Your task to perform on an android device: Open the calendar and show me this week's events Image 0: 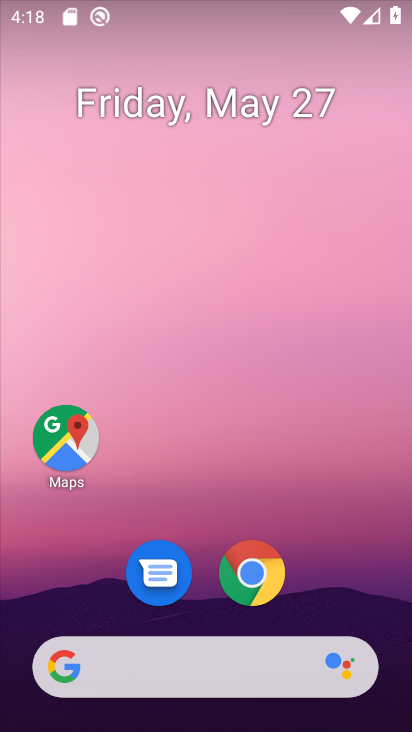
Step 0: drag from (317, 577) to (284, 40)
Your task to perform on an android device: Open the calendar and show me this week's events Image 1: 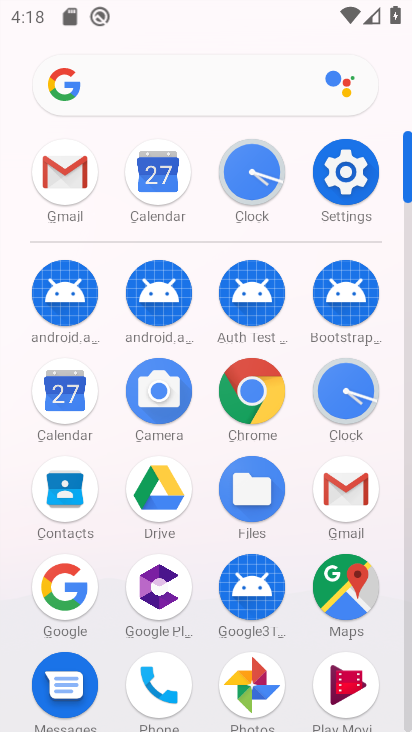
Step 1: click (162, 179)
Your task to perform on an android device: Open the calendar and show me this week's events Image 2: 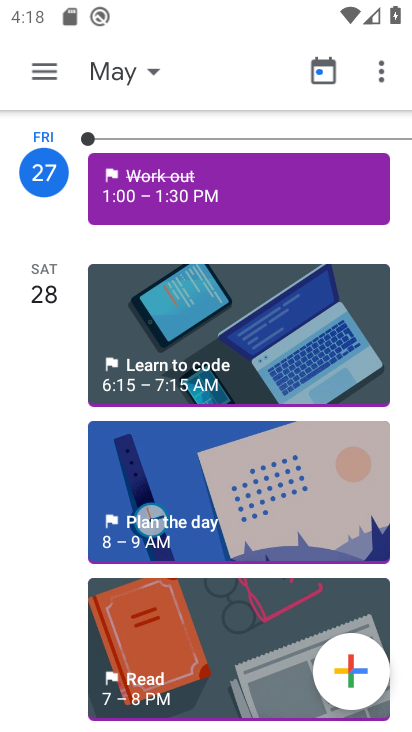
Step 2: click (38, 65)
Your task to perform on an android device: Open the calendar and show me this week's events Image 3: 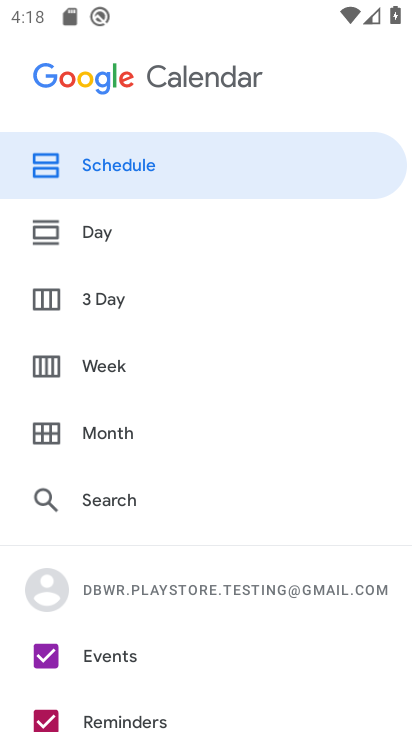
Step 3: click (68, 363)
Your task to perform on an android device: Open the calendar and show me this week's events Image 4: 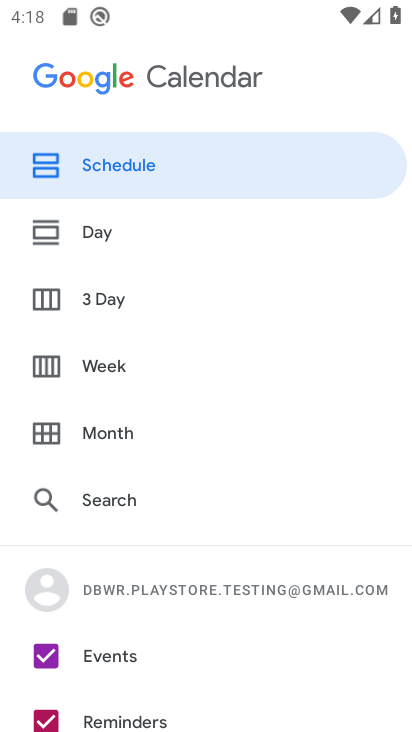
Step 4: click (42, 363)
Your task to perform on an android device: Open the calendar and show me this week's events Image 5: 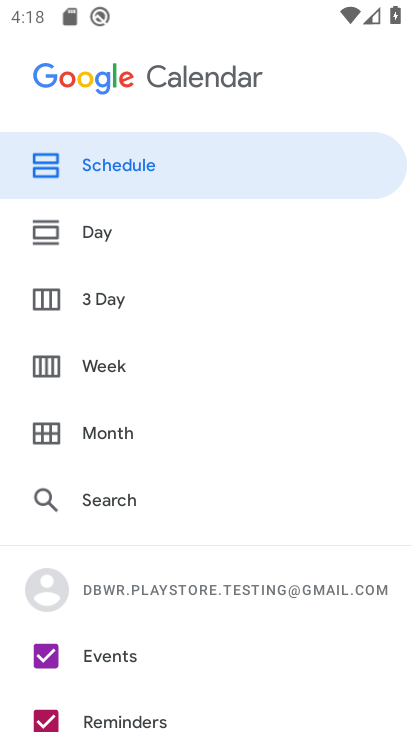
Step 5: click (42, 363)
Your task to perform on an android device: Open the calendar and show me this week's events Image 6: 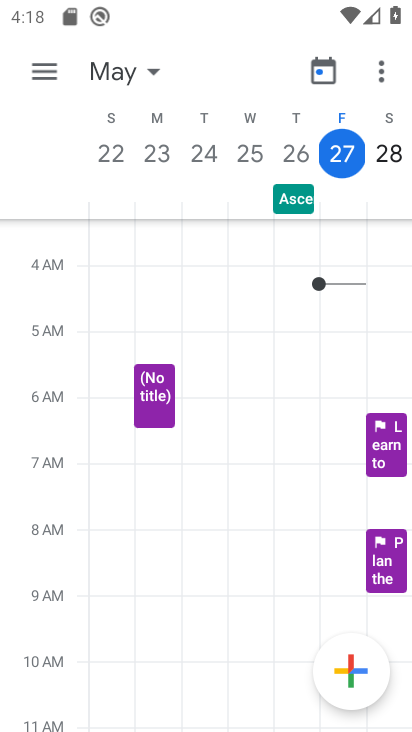
Step 6: task complete